Your task to perform on an android device: Is it going to rain this weekend? Image 0: 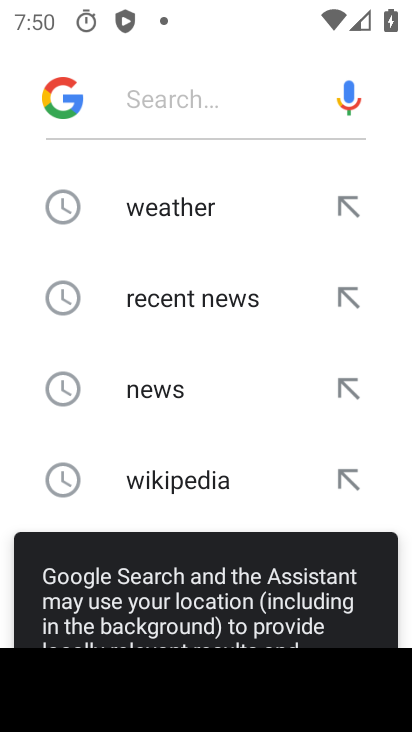
Step 0: press home button
Your task to perform on an android device: Is it going to rain this weekend? Image 1: 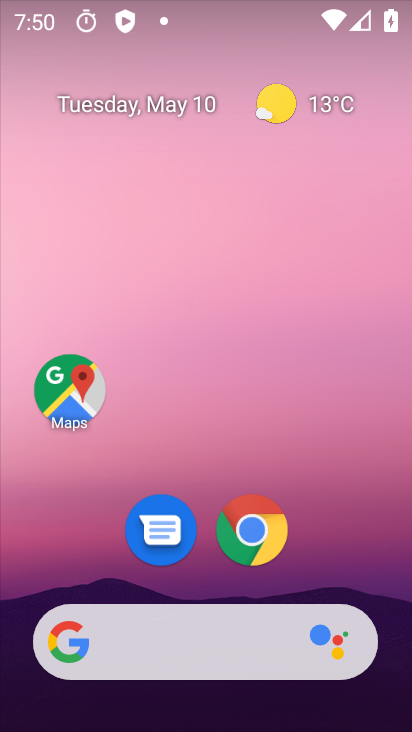
Step 1: click (343, 104)
Your task to perform on an android device: Is it going to rain this weekend? Image 2: 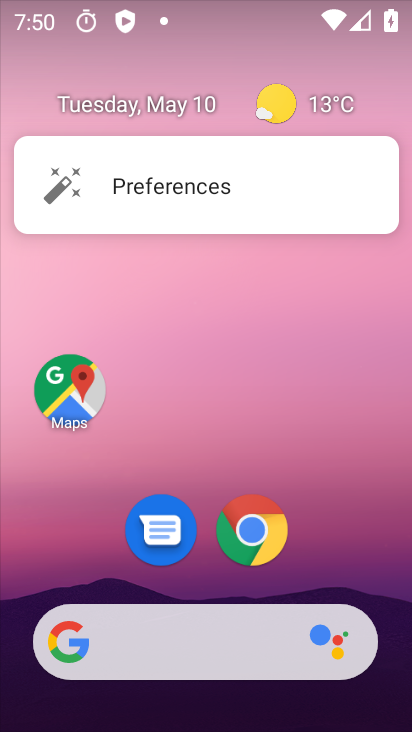
Step 2: click (327, 103)
Your task to perform on an android device: Is it going to rain this weekend? Image 3: 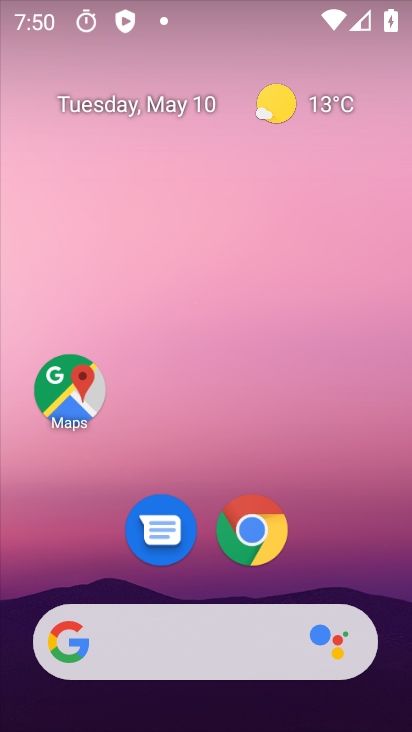
Step 3: click (328, 103)
Your task to perform on an android device: Is it going to rain this weekend? Image 4: 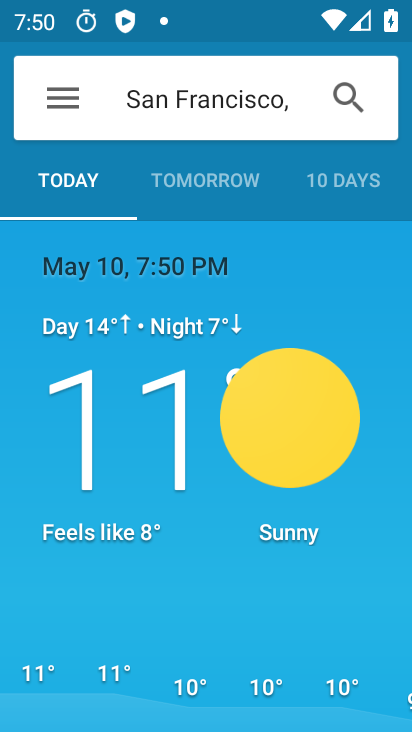
Step 4: click (328, 184)
Your task to perform on an android device: Is it going to rain this weekend? Image 5: 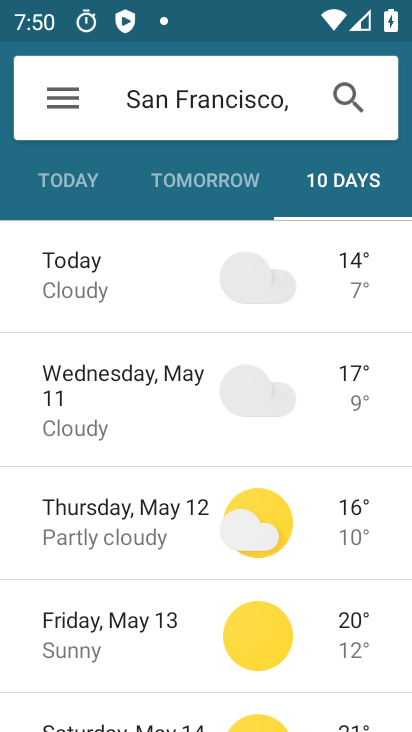
Step 5: task complete